Your task to perform on an android device: Show me popular videos on Youtube Image 0: 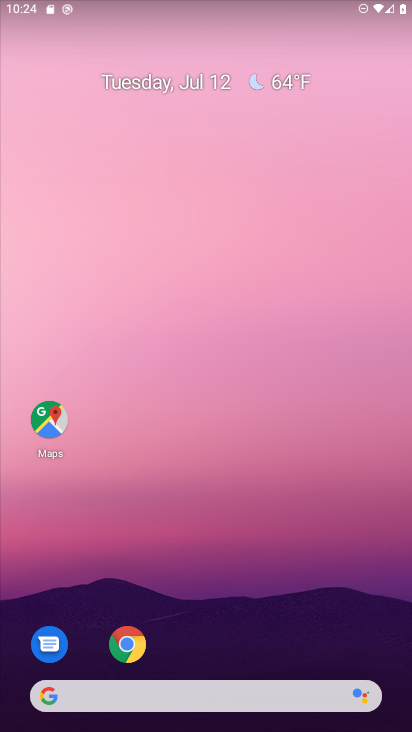
Step 0: drag from (240, 668) to (267, 258)
Your task to perform on an android device: Show me popular videos on Youtube Image 1: 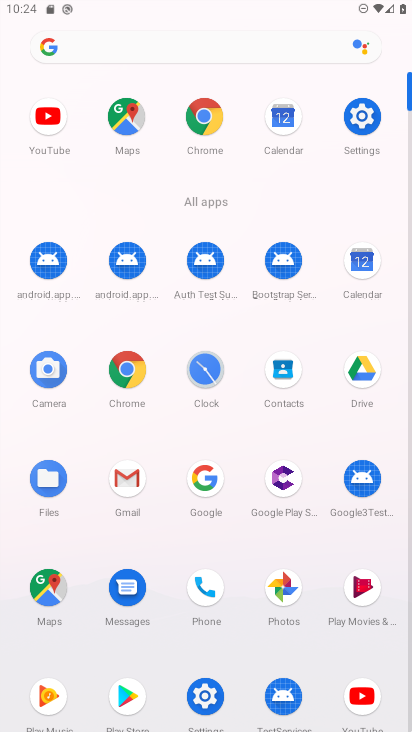
Step 1: click (57, 158)
Your task to perform on an android device: Show me popular videos on Youtube Image 2: 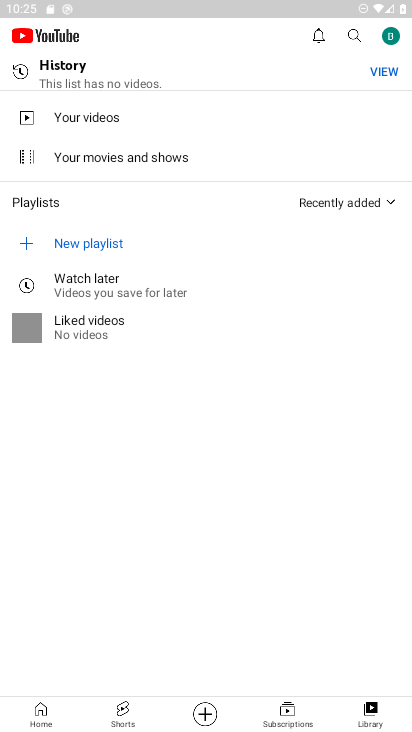
Step 2: task complete